Your task to perform on an android device: Search for a new eyeshadow on Sephora Image 0: 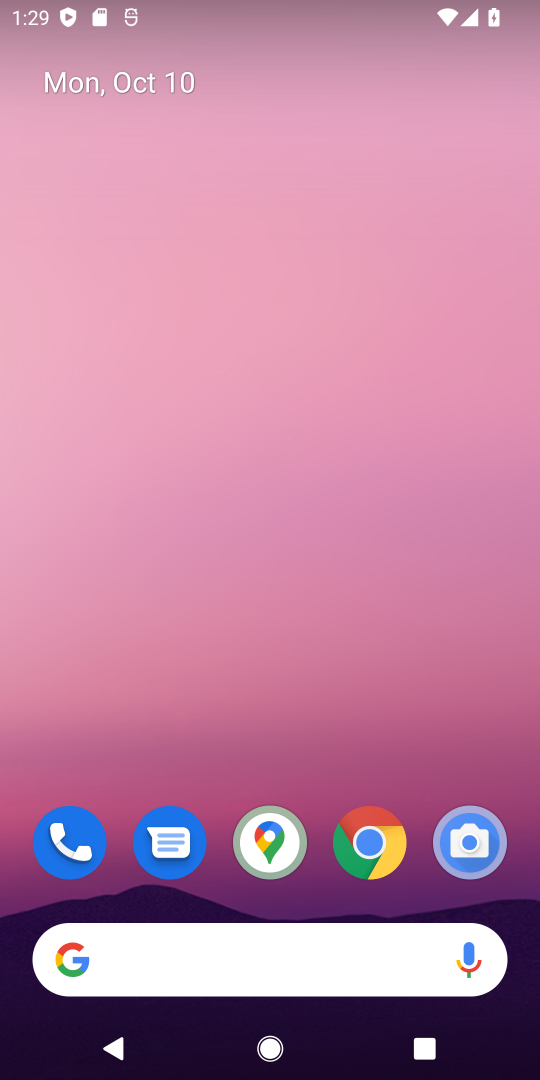
Step 0: click (355, 858)
Your task to perform on an android device: Search for a new eyeshadow on Sephora Image 1: 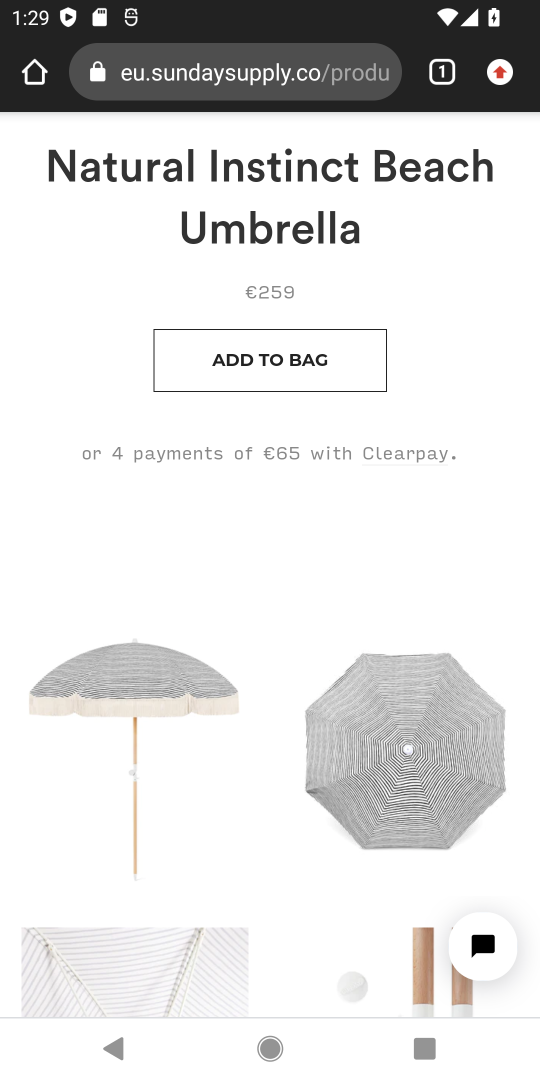
Step 1: click (267, 58)
Your task to perform on an android device: Search for a new eyeshadow on Sephora Image 2: 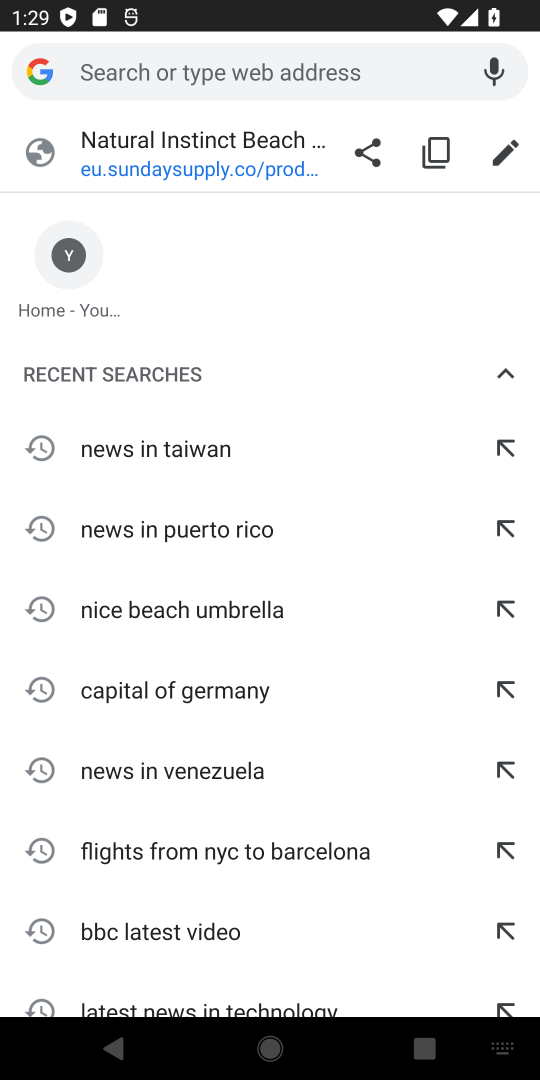
Step 2: type "sephora"
Your task to perform on an android device: Search for a new eyeshadow on Sephora Image 3: 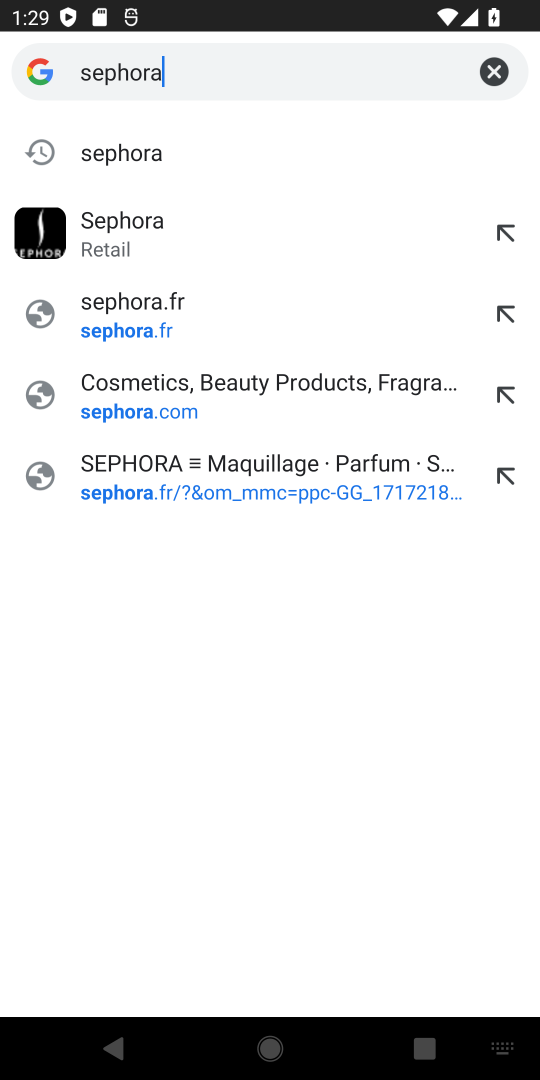
Step 3: press enter
Your task to perform on an android device: Search for a new eyeshadow on Sephora Image 4: 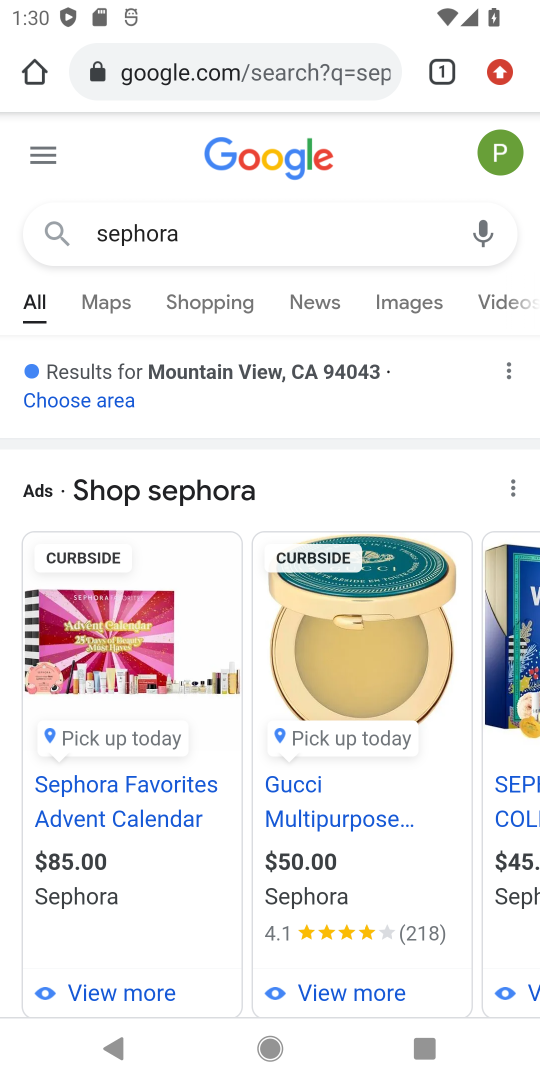
Step 4: drag from (270, 466) to (169, 8)
Your task to perform on an android device: Search for a new eyeshadow on Sephora Image 5: 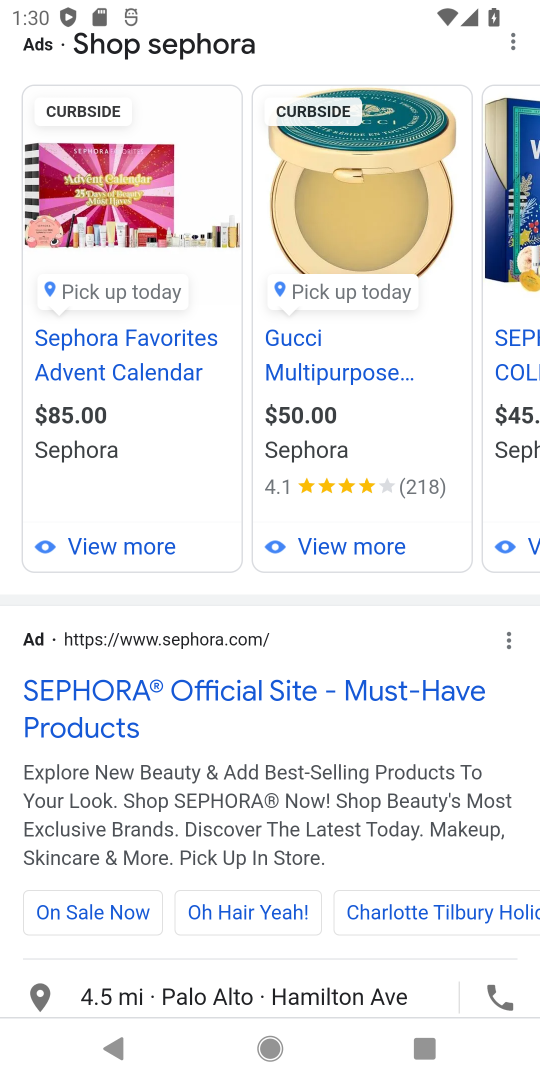
Step 5: click (110, 693)
Your task to perform on an android device: Search for a new eyeshadow on Sephora Image 6: 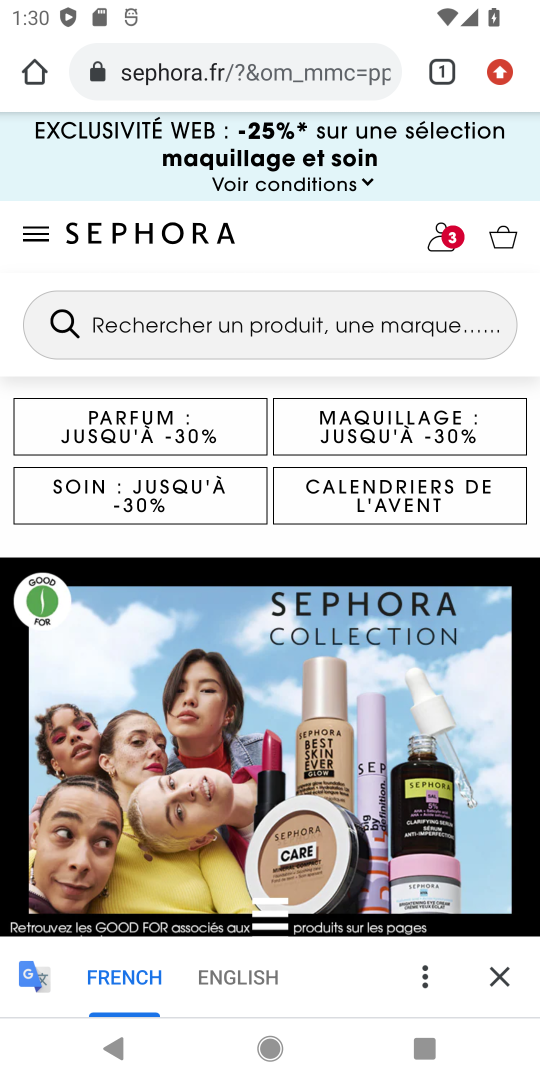
Step 6: click (419, 161)
Your task to perform on an android device: Search for a new eyeshadow on Sephora Image 7: 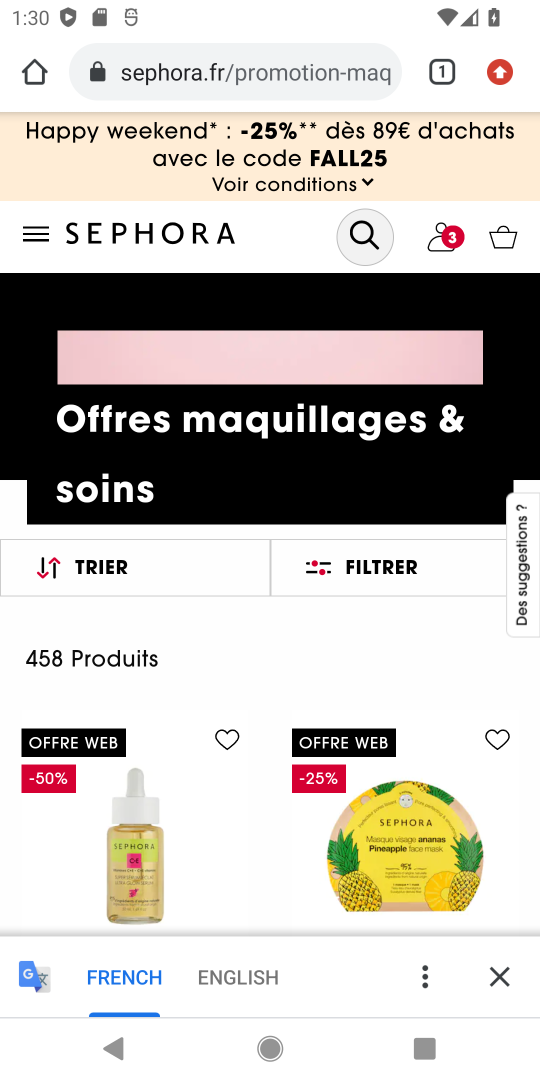
Step 7: press back button
Your task to perform on an android device: Search for a new eyeshadow on Sephora Image 8: 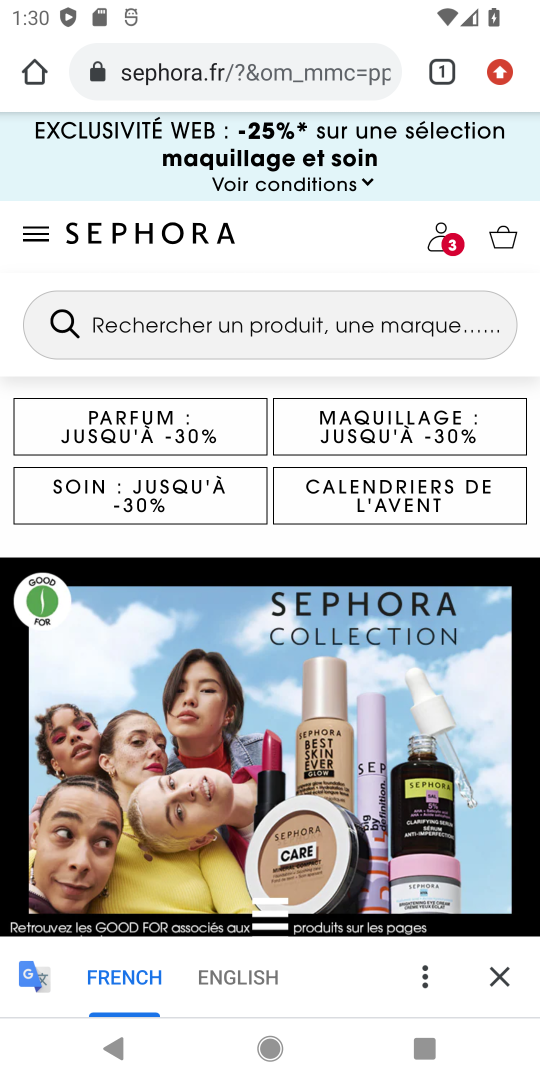
Step 8: click (349, 345)
Your task to perform on an android device: Search for a new eyeshadow on Sephora Image 9: 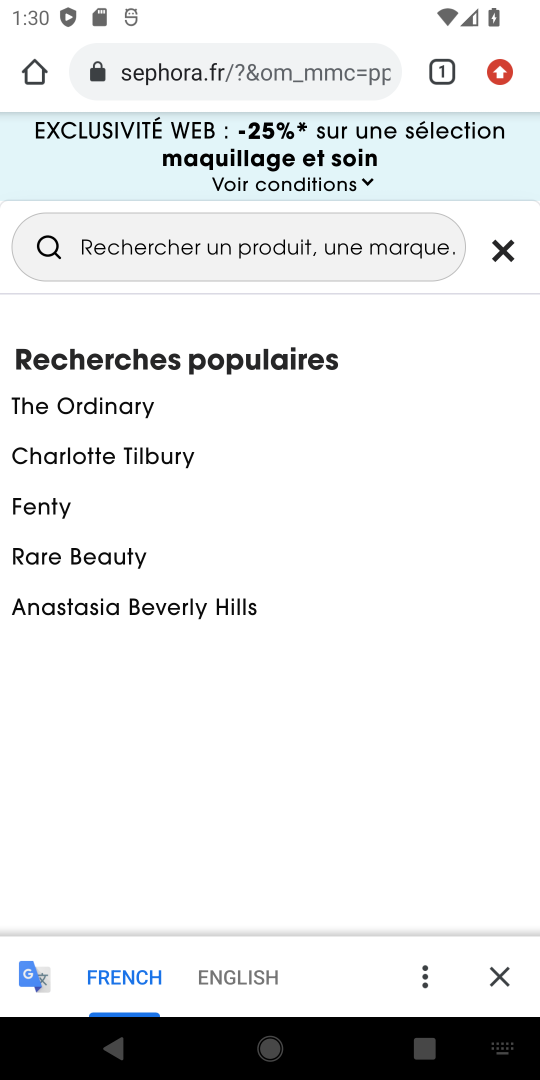
Step 9: type "new eyeshadow"
Your task to perform on an android device: Search for a new eyeshadow on Sephora Image 10: 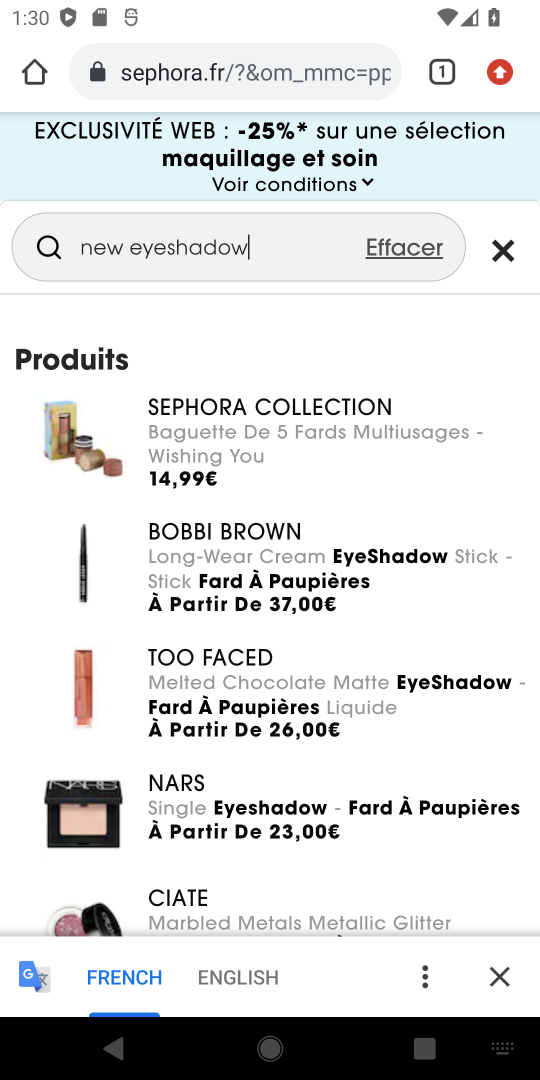
Step 10: type ""
Your task to perform on an android device: Search for a new eyeshadow on Sephora Image 11: 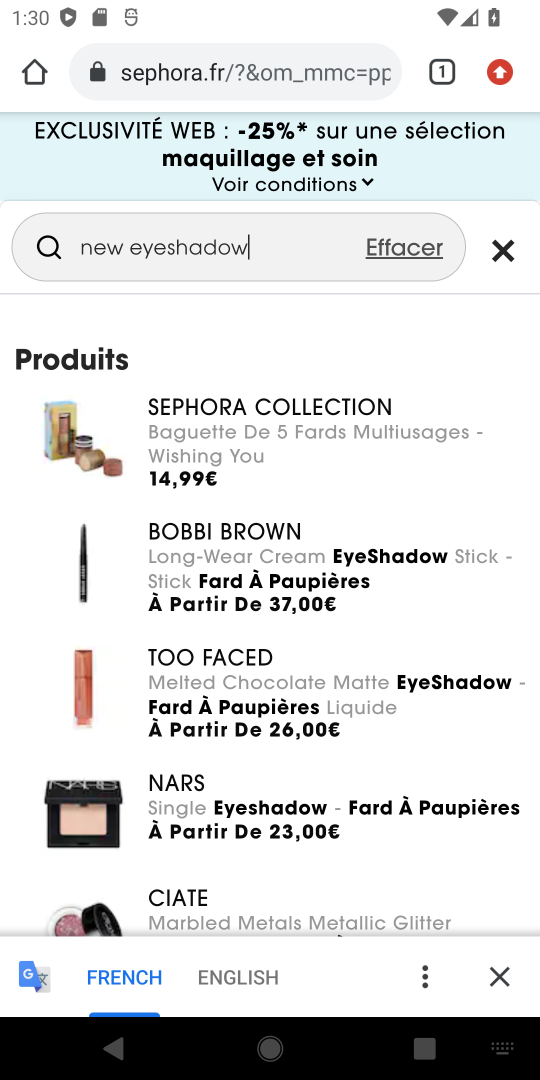
Step 11: press enter
Your task to perform on an android device: Search for a new eyeshadow on Sephora Image 12: 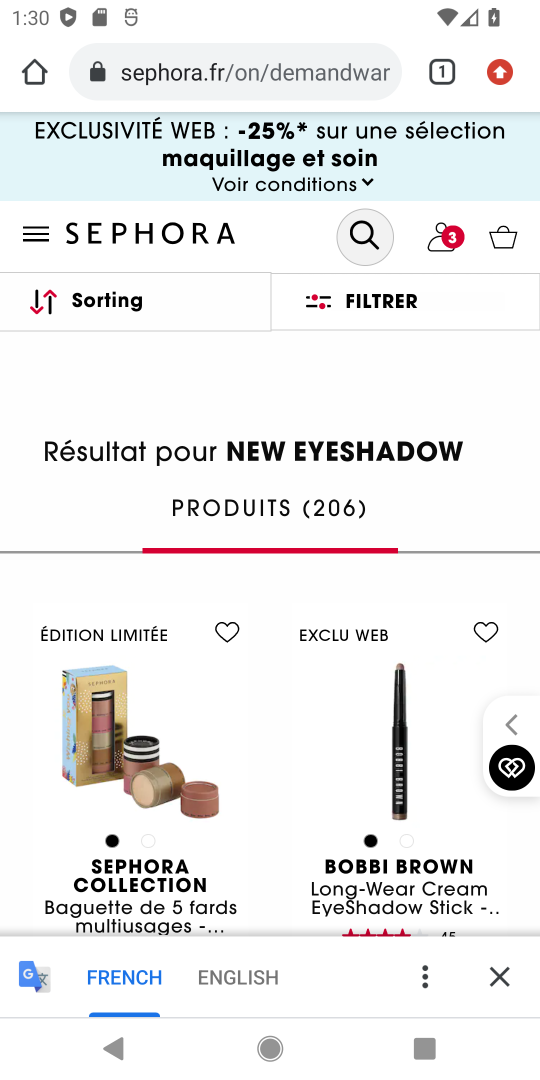
Step 12: task complete